Your task to perform on an android device: move an email to a new category in the gmail app Image 0: 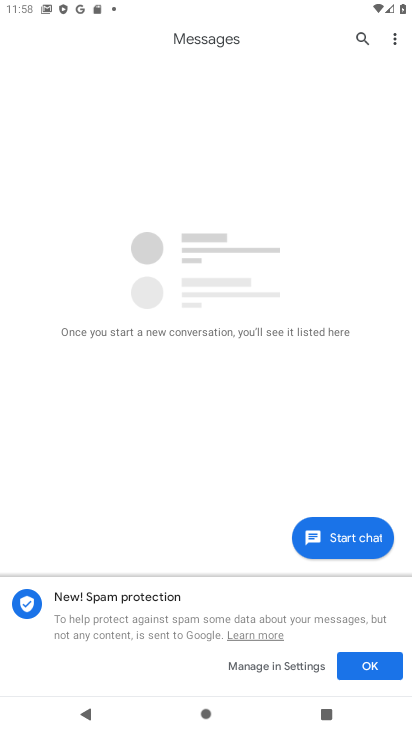
Step 0: press home button
Your task to perform on an android device: move an email to a new category in the gmail app Image 1: 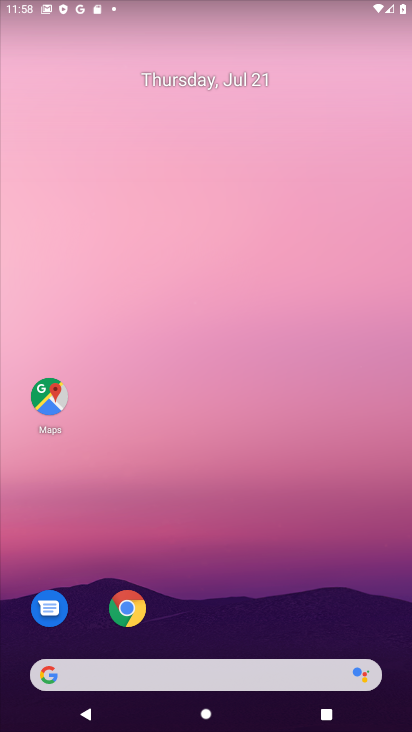
Step 1: drag from (215, 630) to (222, 60)
Your task to perform on an android device: move an email to a new category in the gmail app Image 2: 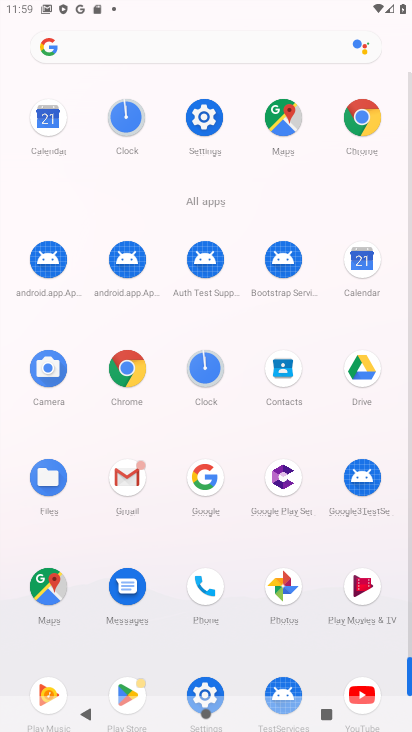
Step 2: click (126, 473)
Your task to perform on an android device: move an email to a new category in the gmail app Image 3: 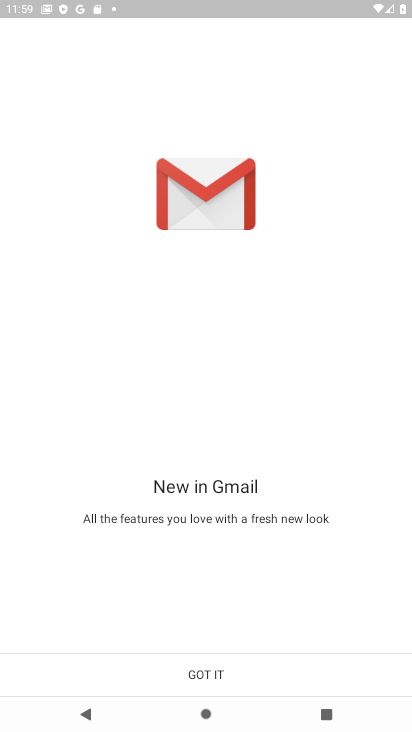
Step 3: click (206, 679)
Your task to perform on an android device: move an email to a new category in the gmail app Image 4: 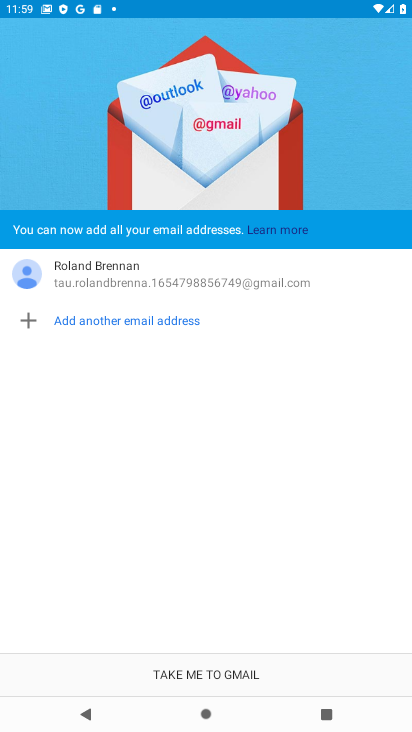
Step 4: click (205, 674)
Your task to perform on an android device: move an email to a new category in the gmail app Image 5: 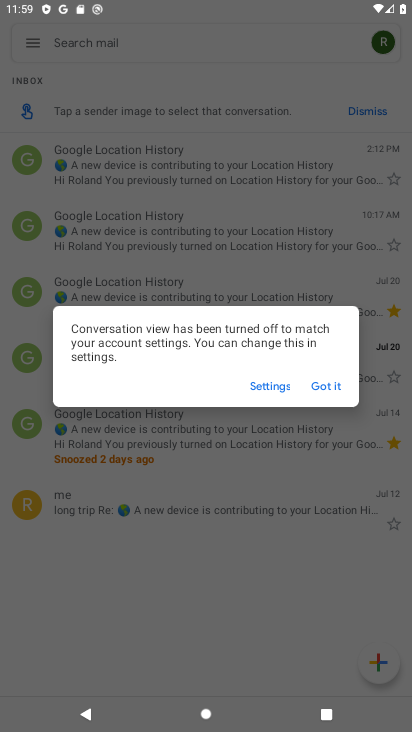
Step 5: click (325, 382)
Your task to perform on an android device: move an email to a new category in the gmail app Image 6: 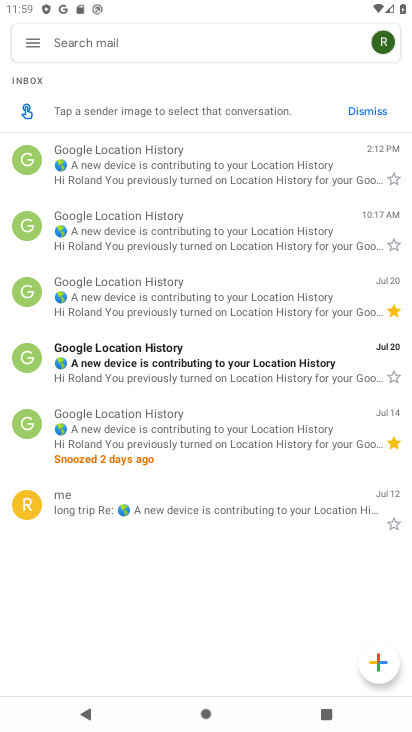
Step 6: click (26, 157)
Your task to perform on an android device: move an email to a new category in the gmail app Image 7: 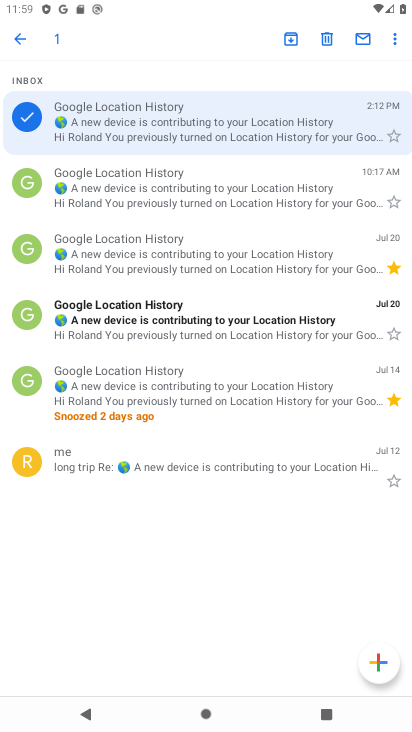
Step 7: click (392, 46)
Your task to perform on an android device: move an email to a new category in the gmail app Image 8: 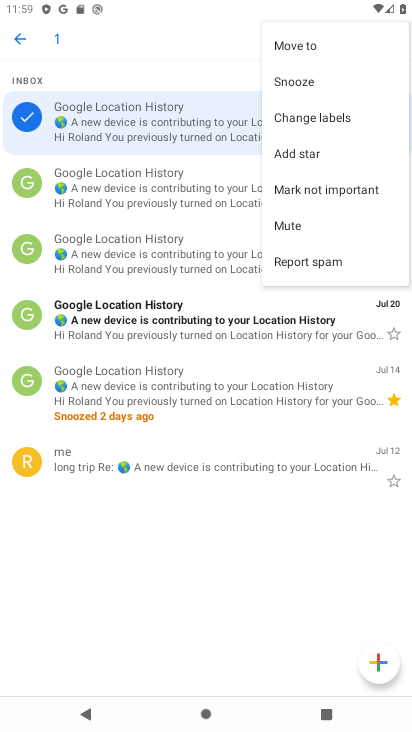
Step 8: click (313, 44)
Your task to perform on an android device: move an email to a new category in the gmail app Image 9: 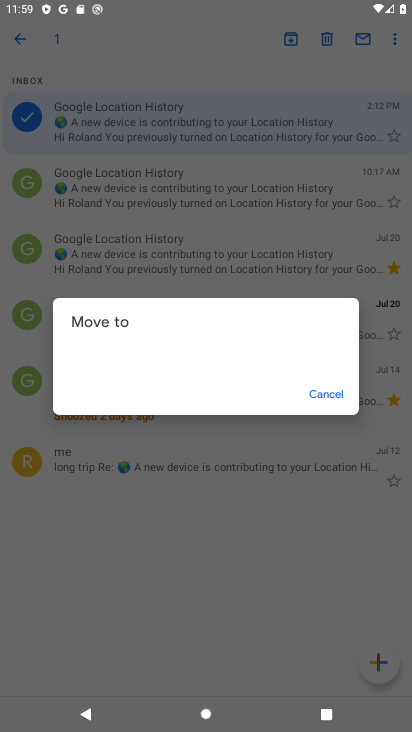
Step 9: task complete